Your task to perform on an android device: turn off airplane mode Image 0: 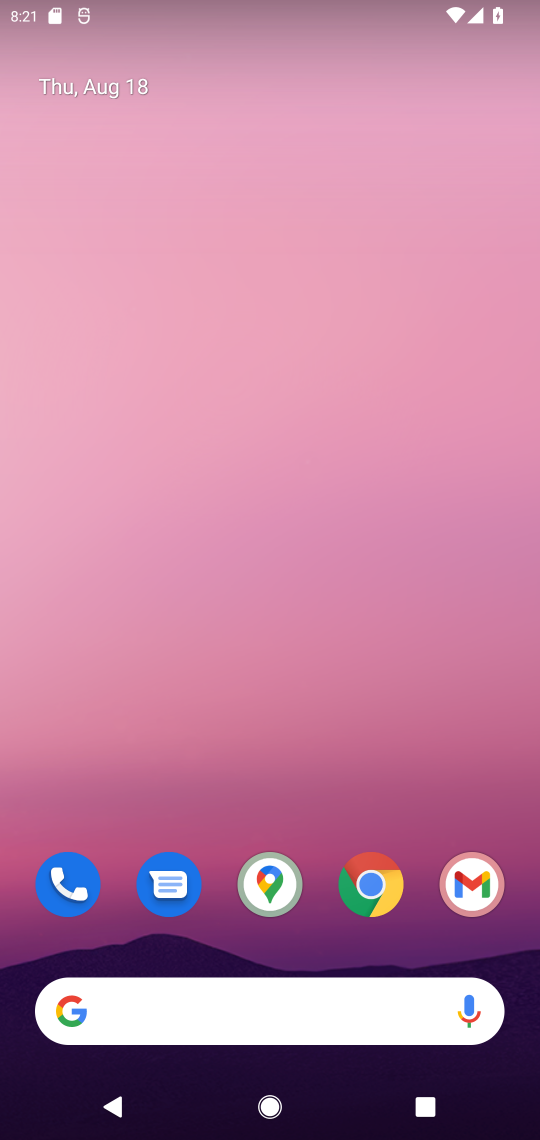
Step 0: drag from (311, 9) to (320, 916)
Your task to perform on an android device: turn off airplane mode Image 1: 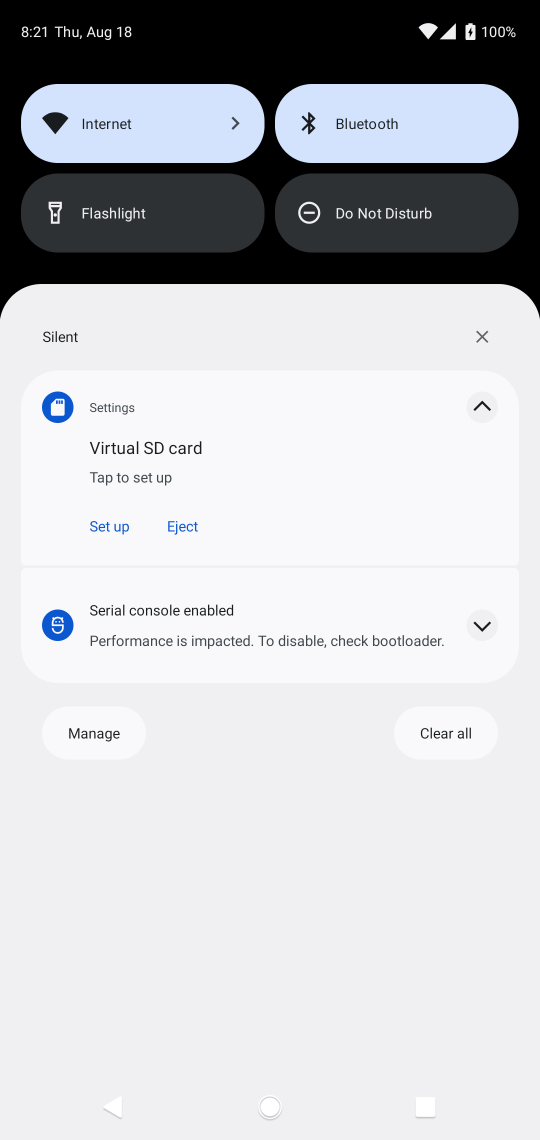
Step 1: task complete